Your task to perform on an android device: Do I have any events today? Image 0: 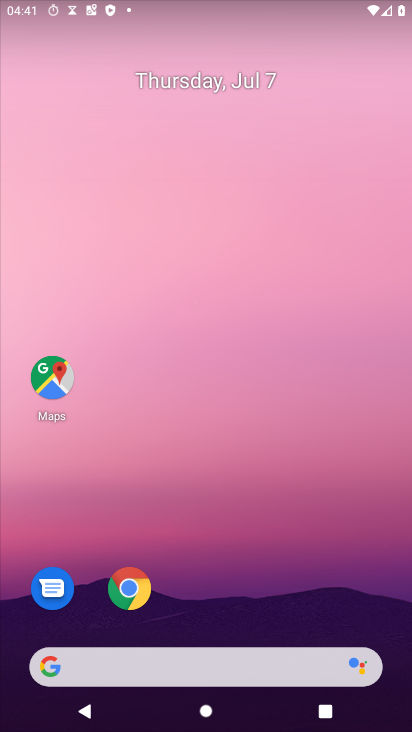
Step 0: press home button
Your task to perform on an android device: Do I have any events today? Image 1: 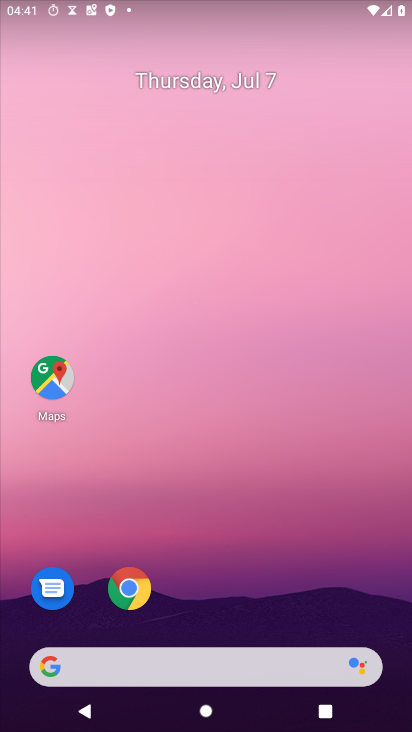
Step 1: drag from (260, 621) to (244, 163)
Your task to perform on an android device: Do I have any events today? Image 2: 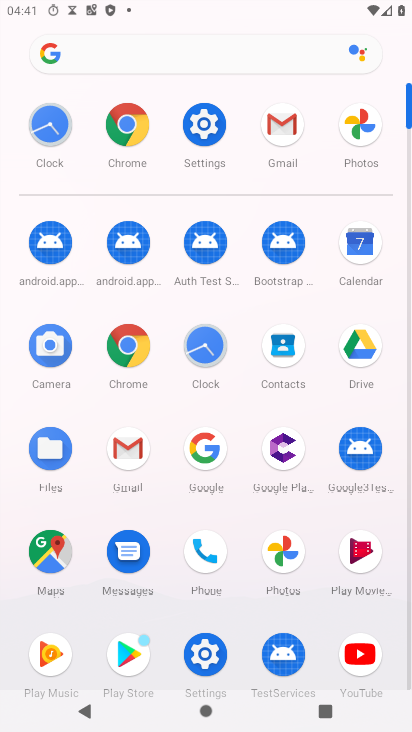
Step 2: click (368, 245)
Your task to perform on an android device: Do I have any events today? Image 3: 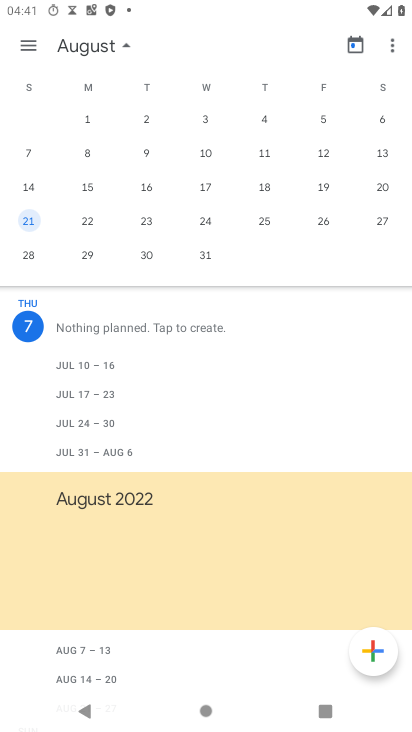
Step 3: drag from (151, 172) to (405, 176)
Your task to perform on an android device: Do I have any events today? Image 4: 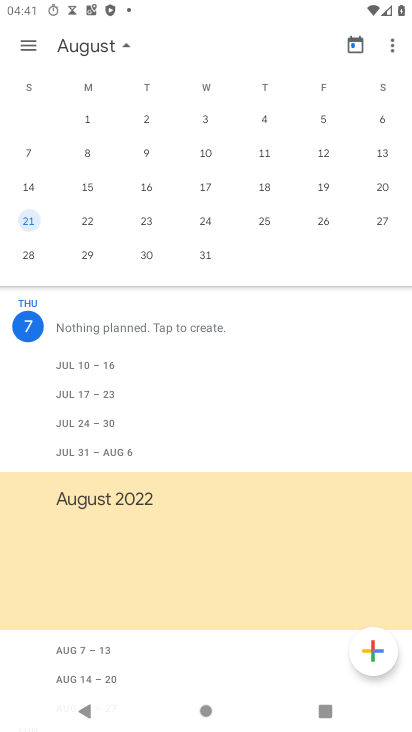
Step 4: drag from (88, 175) to (379, 159)
Your task to perform on an android device: Do I have any events today? Image 5: 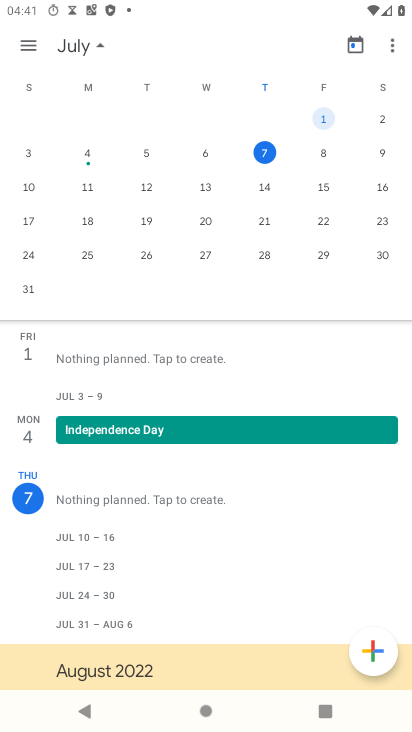
Step 5: click (258, 153)
Your task to perform on an android device: Do I have any events today? Image 6: 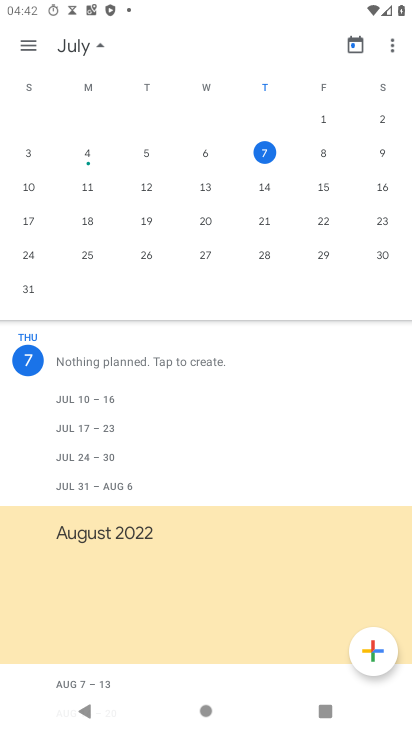
Step 6: task complete